Your task to perform on an android device: Open wifi settings Image 0: 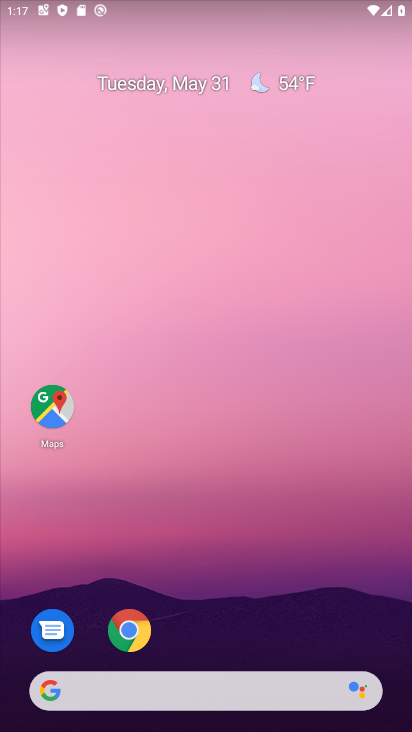
Step 0: drag from (215, 621) to (261, 118)
Your task to perform on an android device: Open wifi settings Image 1: 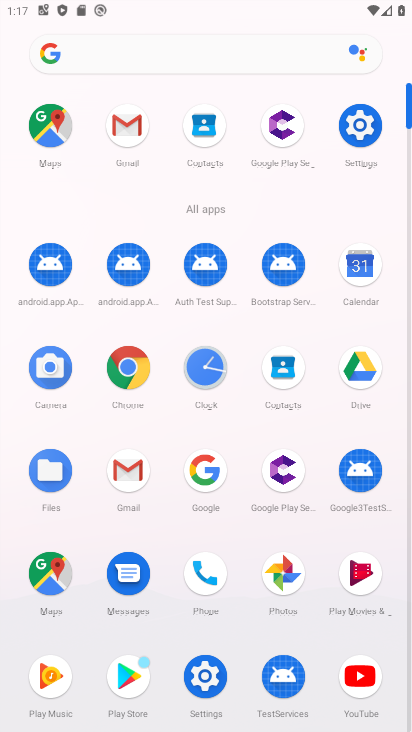
Step 1: click (361, 117)
Your task to perform on an android device: Open wifi settings Image 2: 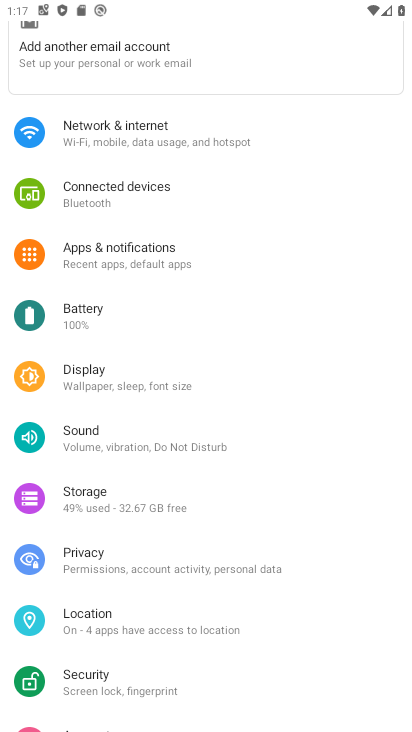
Step 2: click (109, 128)
Your task to perform on an android device: Open wifi settings Image 3: 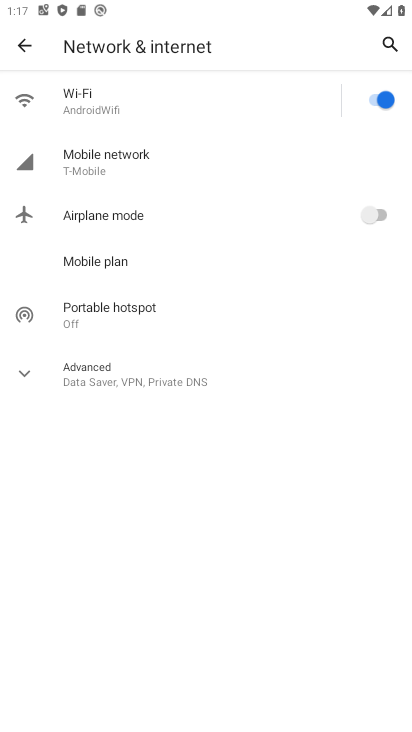
Step 3: click (123, 96)
Your task to perform on an android device: Open wifi settings Image 4: 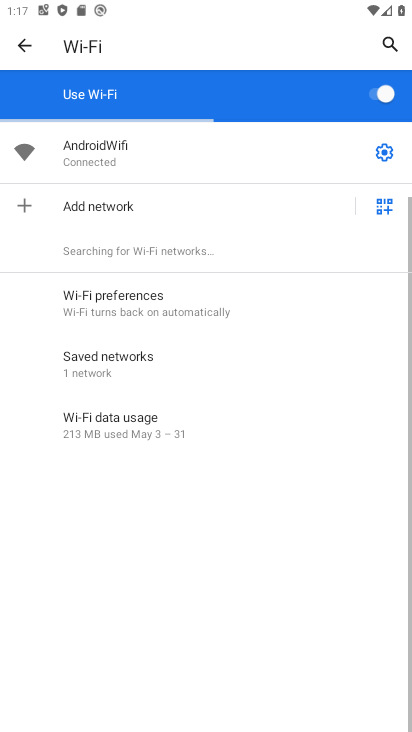
Step 4: click (137, 160)
Your task to perform on an android device: Open wifi settings Image 5: 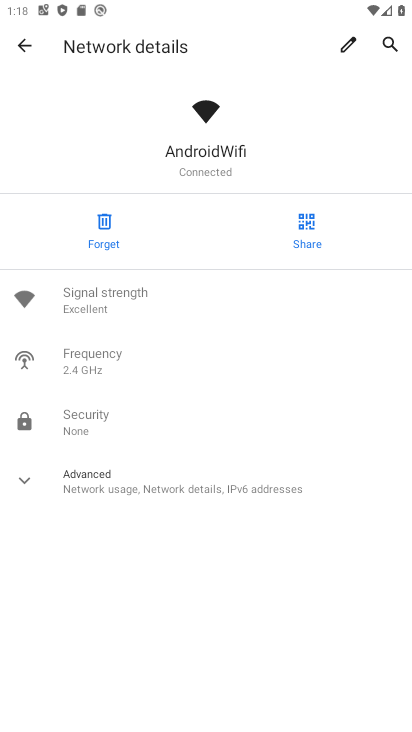
Step 5: task complete